Your task to perform on an android device: check android version Image 0: 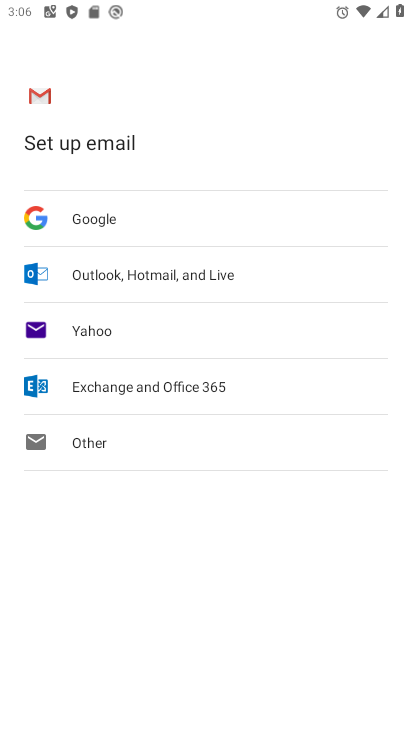
Step 0: press home button
Your task to perform on an android device: check android version Image 1: 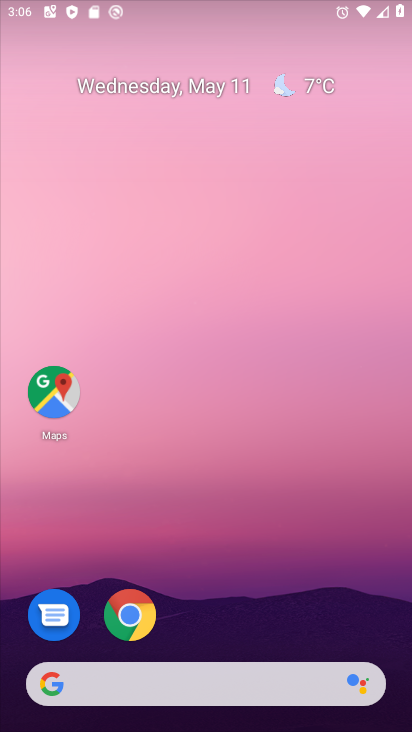
Step 1: drag from (287, 630) to (278, 116)
Your task to perform on an android device: check android version Image 2: 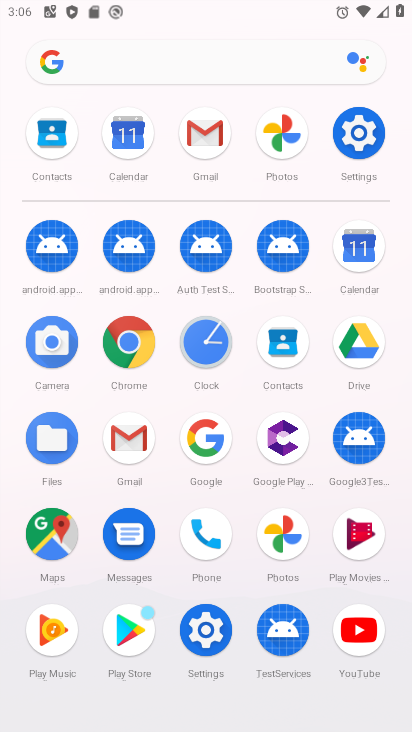
Step 2: click (369, 126)
Your task to perform on an android device: check android version Image 3: 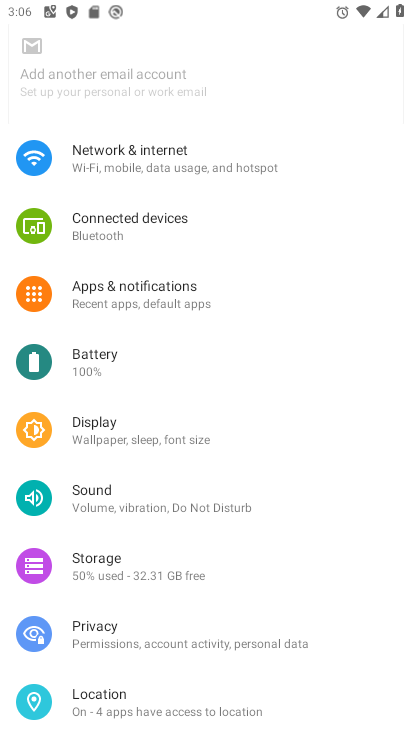
Step 3: drag from (188, 630) to (297, 0)
Your task to perform on an android device: check android version Image 4: 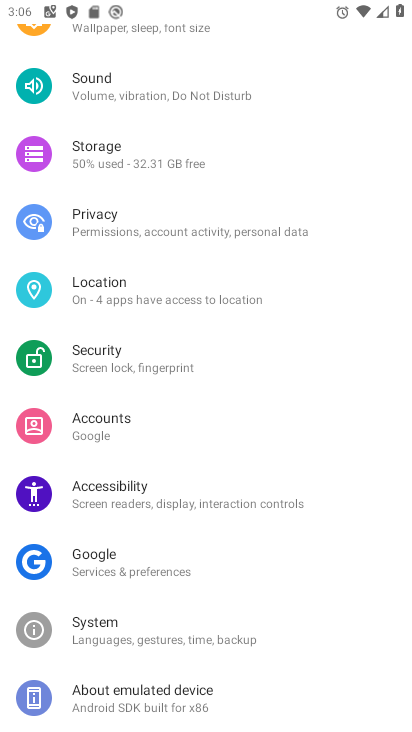
Step 4: drag from (281, 597) to (308, 0)
Your task to perform on an android device: check android version Image 5: 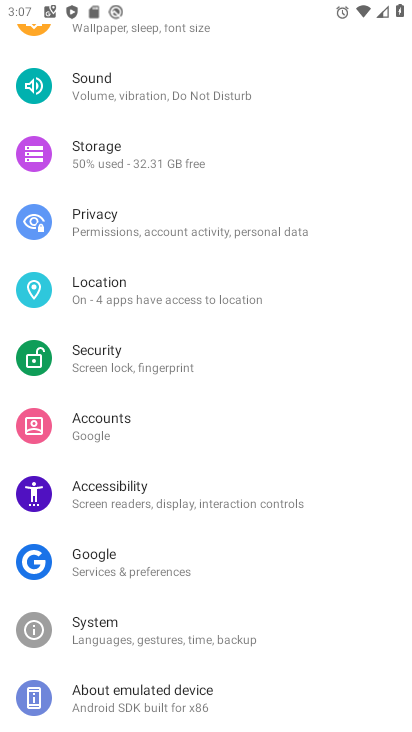
Step 5: click (157, 698)
Your task to perform on an android device: check android version Image 6: 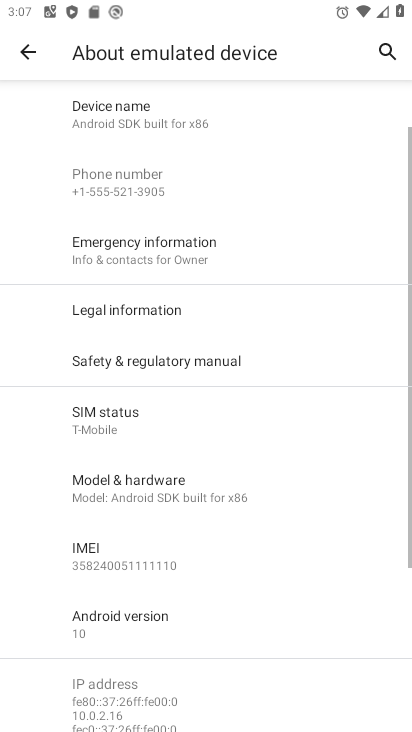
Step 6: click (102, 627)
Your task to perform on an android device: check android version Image 7: 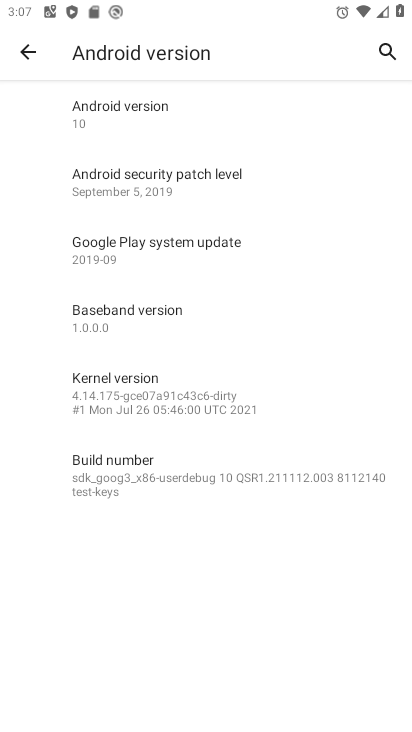
Step 7: task complete